Your task to perform on an android device: check out phone information Image 0: 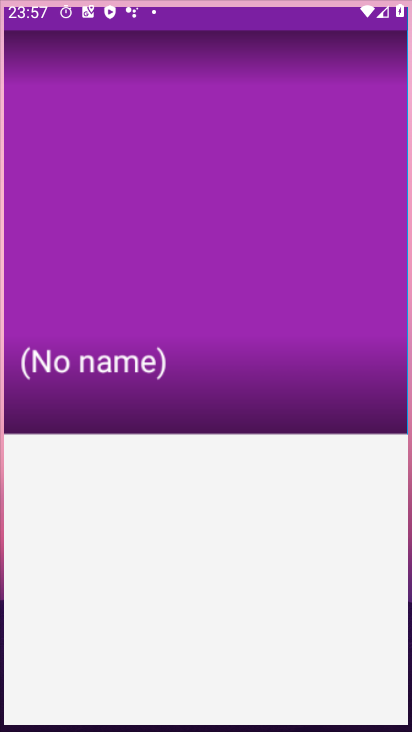
Step 0: press home button
Your task to perform on an android device: check out phone information Image 1: 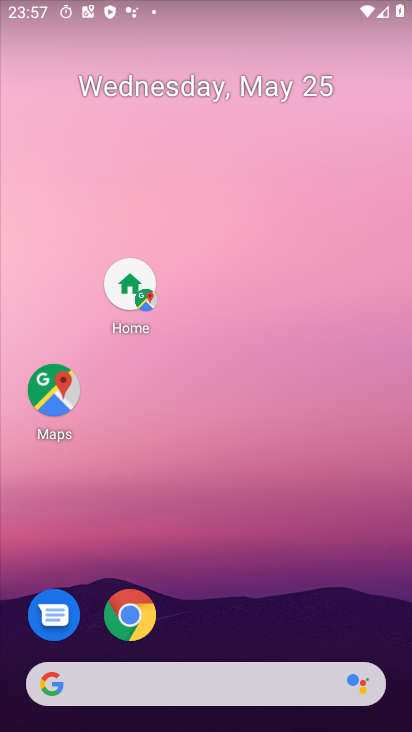
Step 1: drag from (241, 582) to (187, 246)
Your task to perform on an android device: check out phone information Image 2: 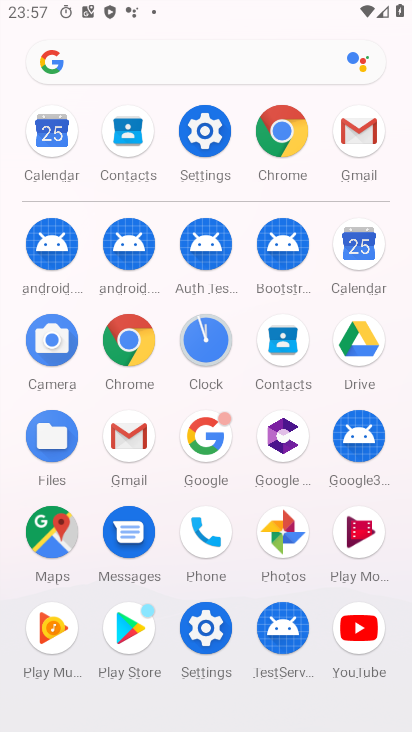
Step 2: click (201, 130)
Your task to perform on an android device: check out phone information Image 3: 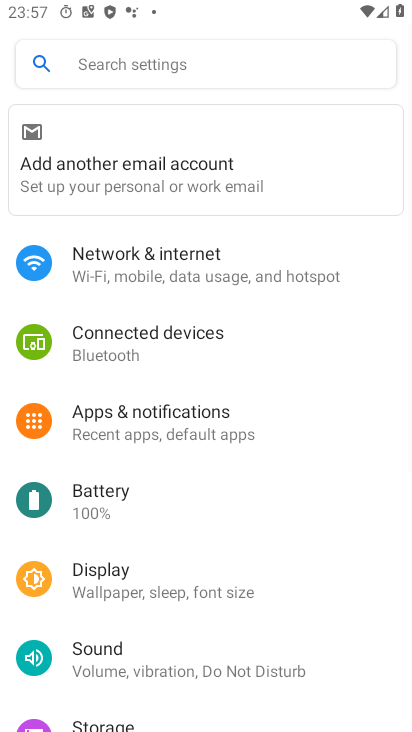
Step 3: drag from (345, 632) to (279, 119)
Your task to perform on an android device: check out phone information Image 4: 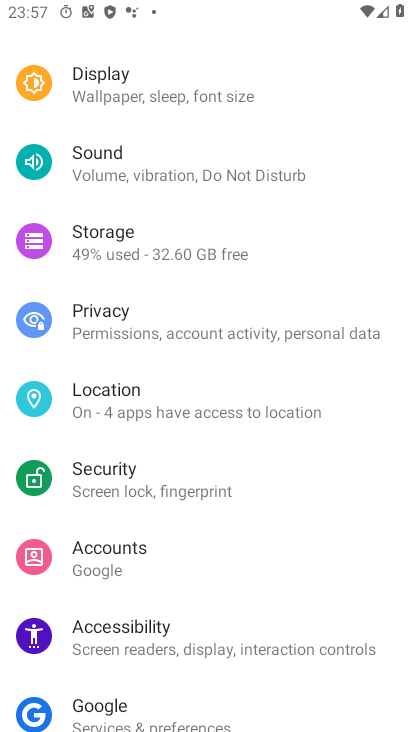
Step 4: drag from (268, 685) to (219, 197)
Your task to perform on an android device: check out phone information Image 5: 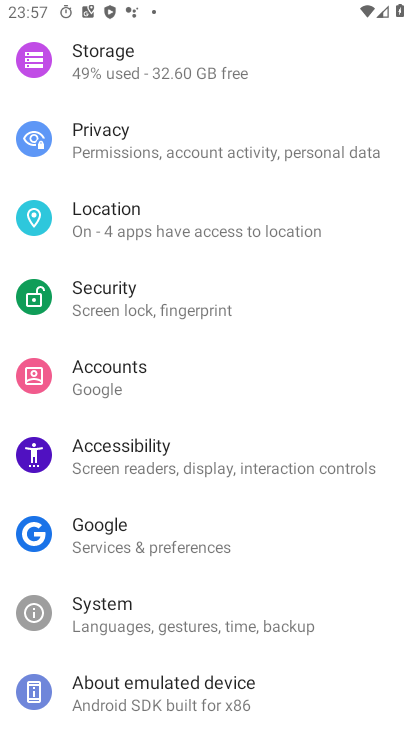
Step 5: click (140, 699)
Your task to perform on an android device: check out phone information Image 6: 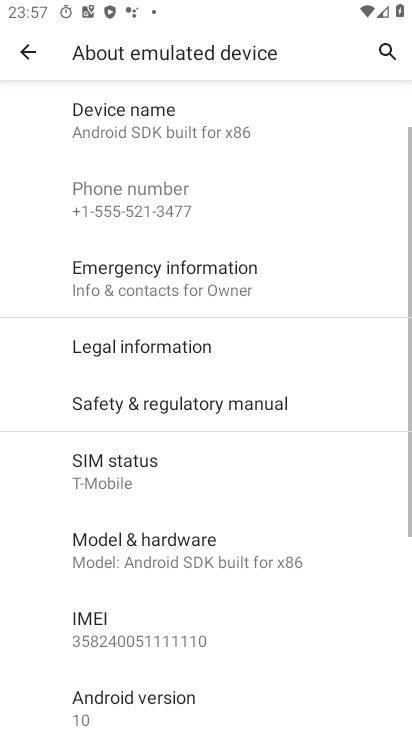
Step 6: task complete